Your task to perform on an android device: Go to settings Image 0: 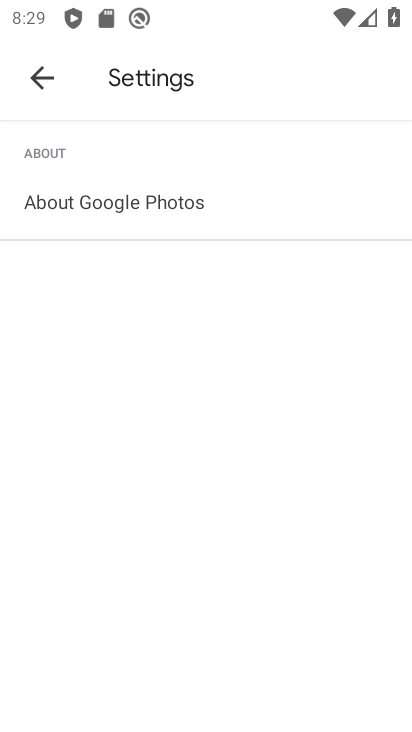
Step 0: press back button
Your task to perform on an android device: Go to settings Image 1: 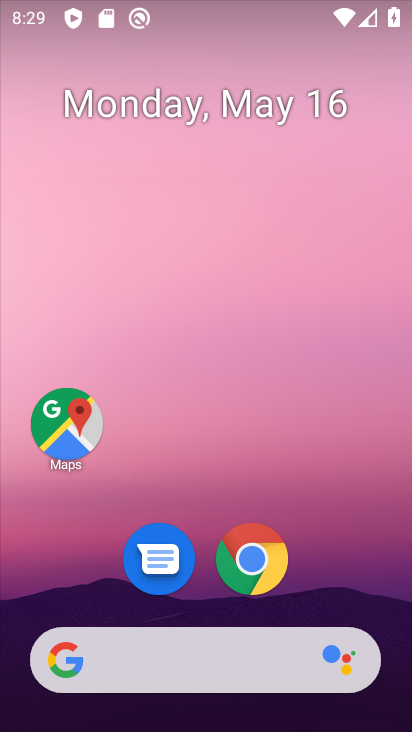
Step 1: drag from (342, 550) to (344, 0)
Your task to perform on an android device: Go to settings Image 2: 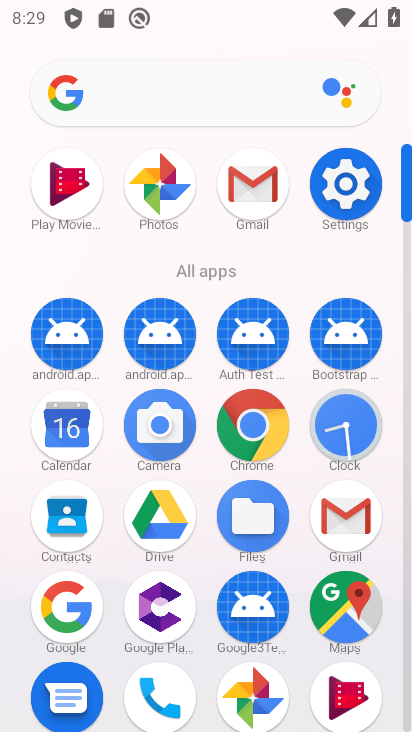
Step 2: click (363, 172)
Your task to perform on an android device: Go to settings Image 3: 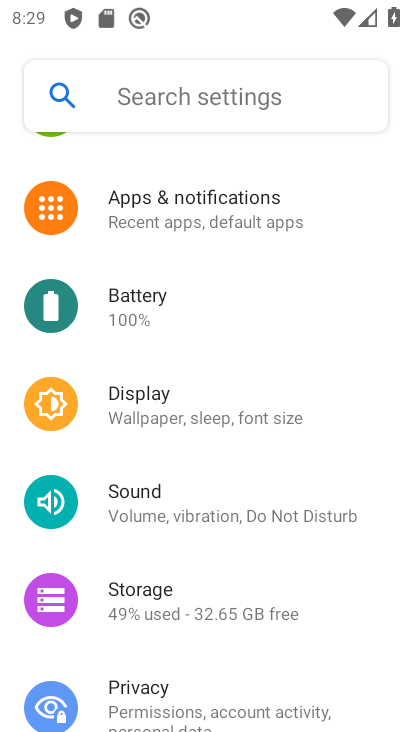
Step 3: task complete